Your task to perform on an android device: find snoozed emails in the gmail app Image 0: 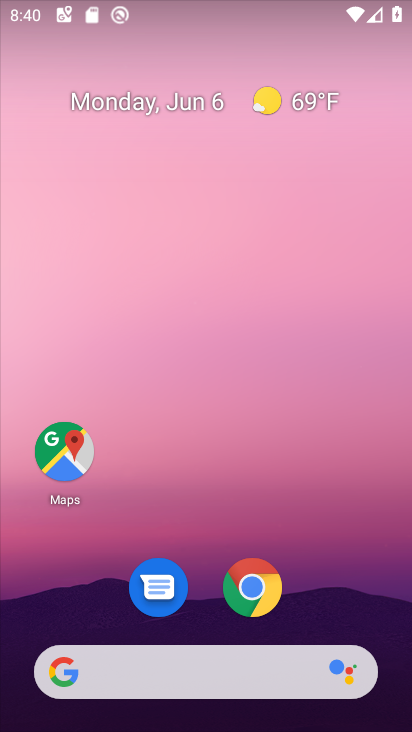
Step 0: drag from (336, 591) to (344, 149)
Your task to perform on an android device: find snoozed emails in the gmail app Image 1: 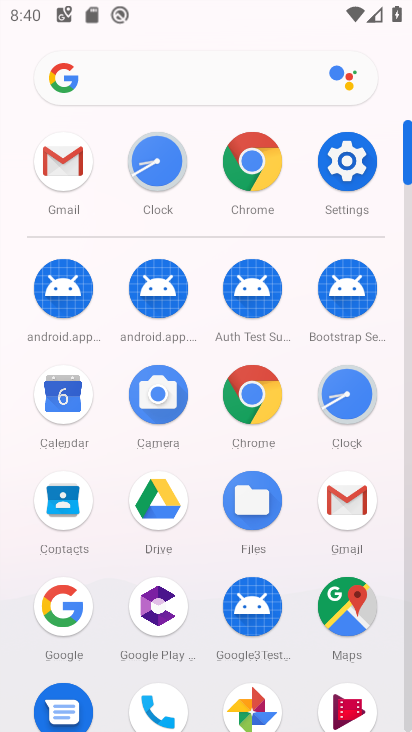
Step 1: click (379, 512)
Your task to perform on an android device: find snoozed emails in the gmail app Image 2: 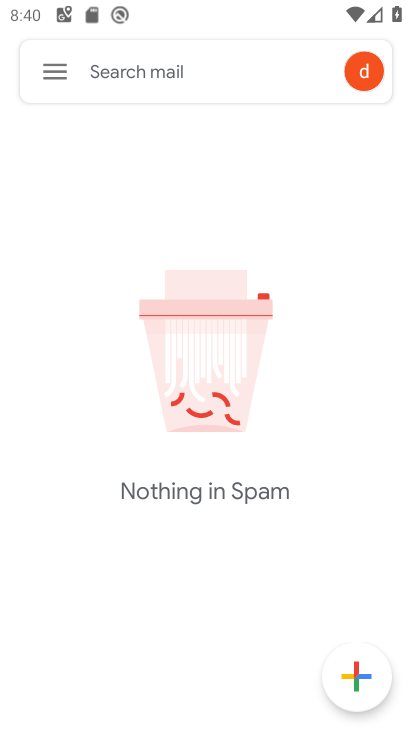
Step 2: click (63, 77)
Your task to perform on an android device: find snoozed emails in the gmail app Image 3: 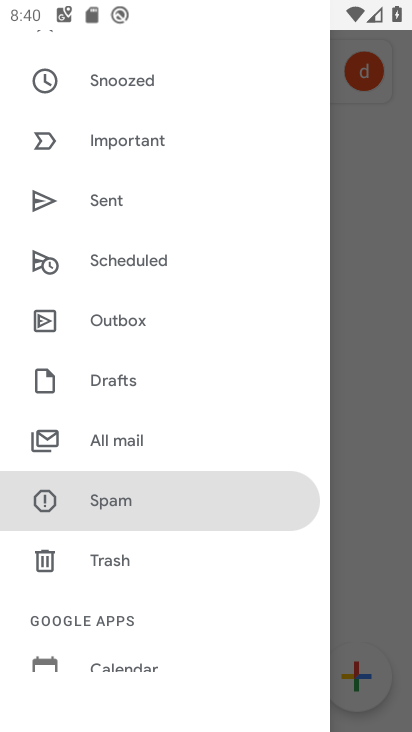
Step 3: drag from (187, 185) to (198, 559)
Your task to perform on an android device: find snoozed emails in the gmail app Image 4: 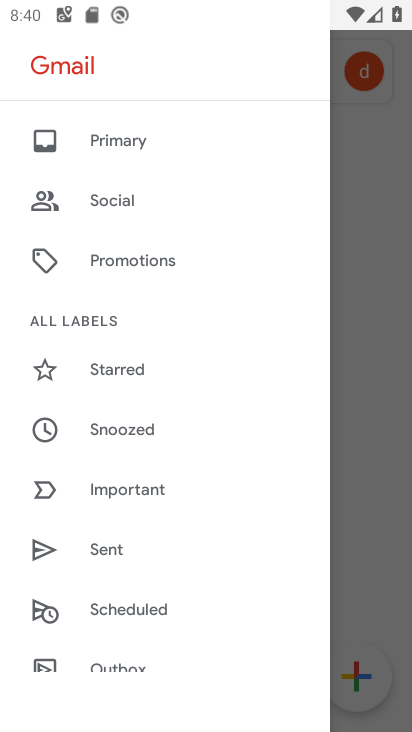
Step 4: click (175, 425)
Your task to perform on an android device: find snoozed emails in the gmail app Image 5: 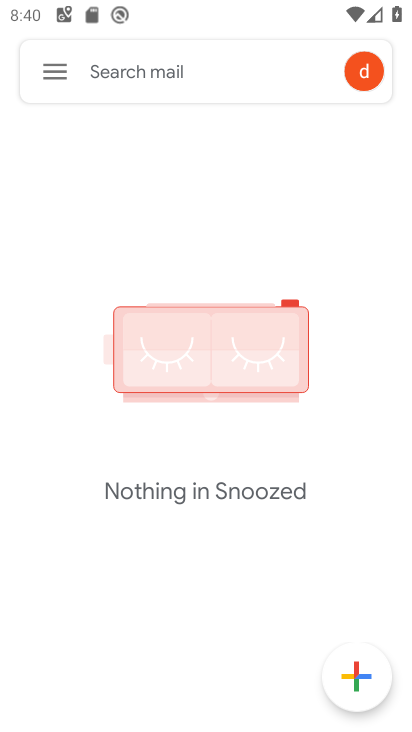
Step 5: task complete